Your task to perform on an android device: turn smart compose on in the gmail app Image 0: 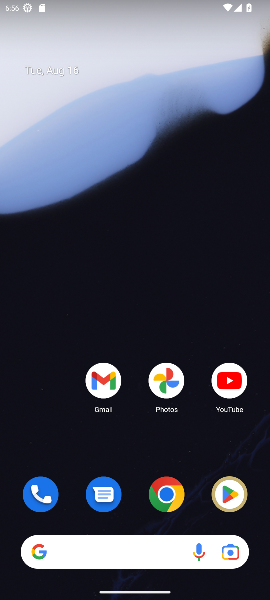
Step 0: drag from (49, 431) to (59, 123)
Your task to perform on an android device: turn smart compose on in the gmail app Image 1: 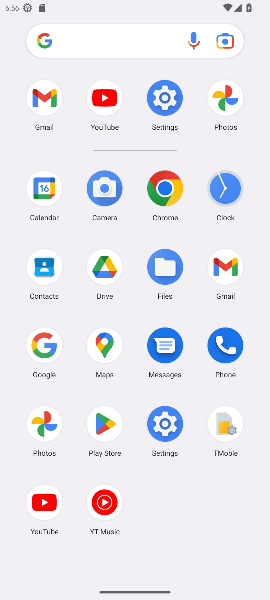
Step 1: click (220, 260)
Your task to perform on an android device: turn smart compose on in the gmail app Image 2: 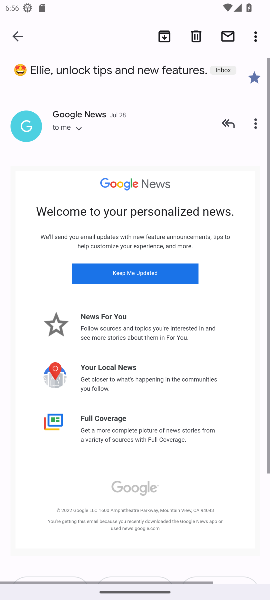
Step 2: task complete